Your task to perform on an android device: turn vacation reply on in the gmail app Image 0: 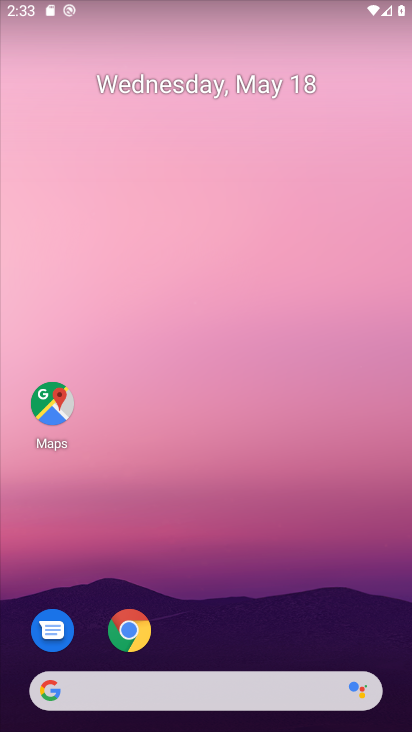
Step 0: drag from (219, 661) to (269, 12)
Your task to perform on an android device: turn vacation reply on in the gmail app Image 1: 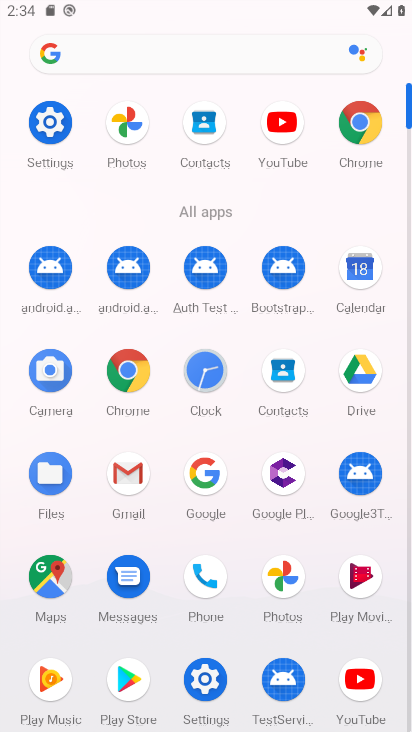
Step 1: click (128, 468)
Your task to perform on an android device: turn vacation reply on in the gmail app Image 2: 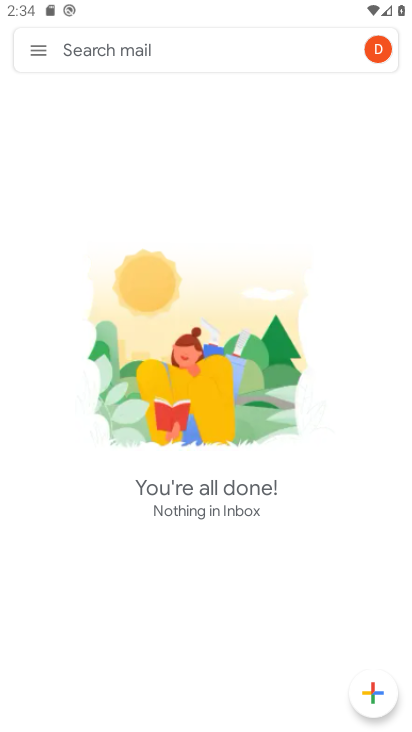
Step 2: click (34, 44)
Your task to perform on an android device: turn vacation reply on in the gmail app Image 3: 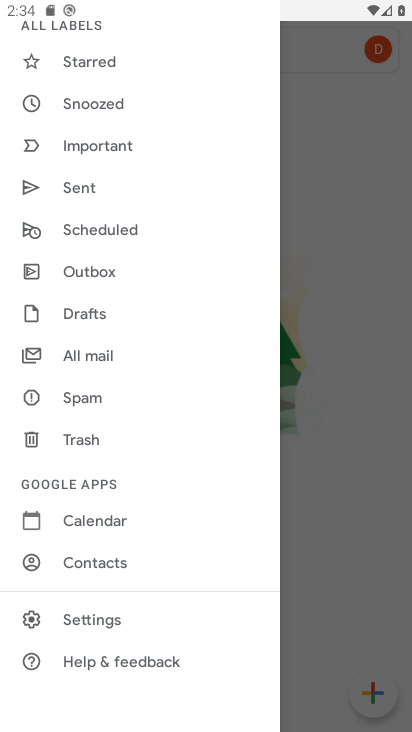
Step 3: click (83, 614)
Your task to perform on an android device: turn vacation reply on in the gmail app Image 4: 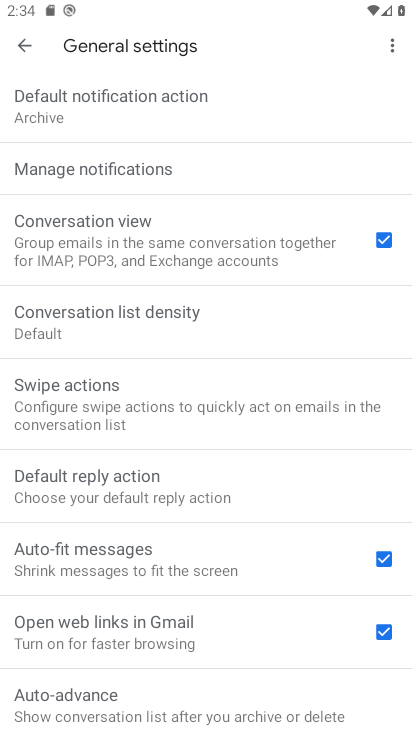
Step 4: click (24, 50)
Your task to perform on an android device: turn vacation reply on in the gmail app Image 5: 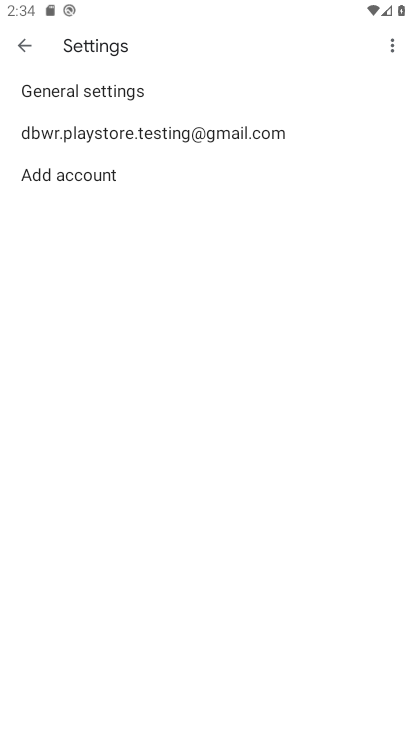
Step 5: click (139, 137)
Your task to perform on an android device: turn vacation reply on in the gmail app Image 6: 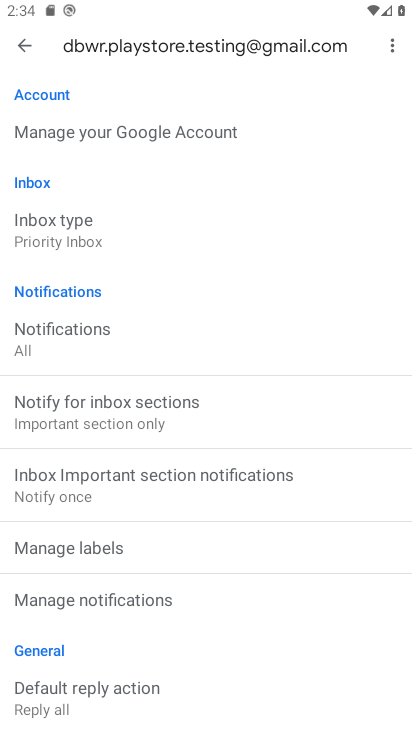
Step 6: drag from (167, 639) to (207, 115)
Your task to perform on an android device: turn vacation reply on in the gmail app Image 7: 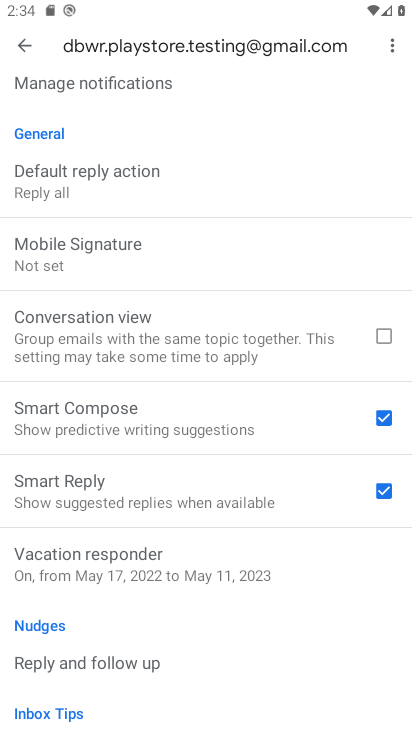
Step 7: click (179, 559)
Your task to perform on an android device: turn vacation reply on in the gmail app Image 8: 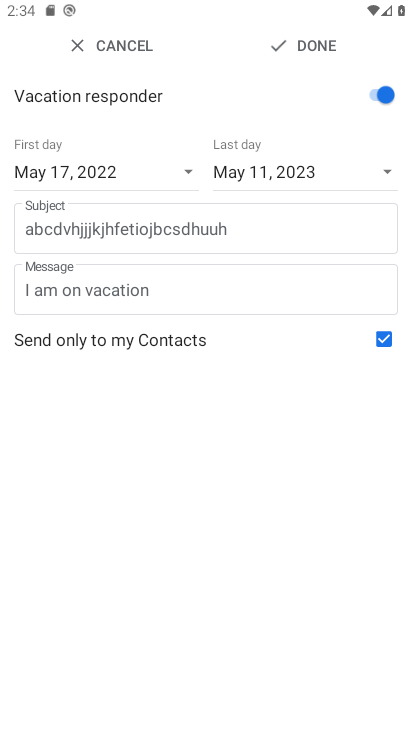
Step 8: task complete